Your task to perform on an android device: Search for "energizer triple a" on walmart.com, select the first entry, and add it to the cart. Image 0: 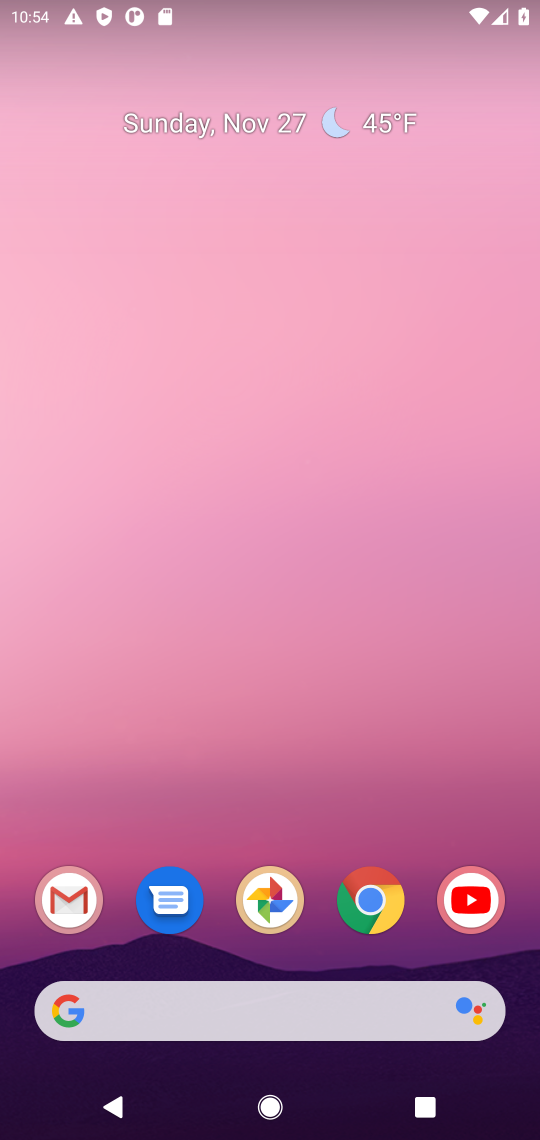
Step 0: click (374, 900)
Your task to perform on an android device: Search for "energizer triple a" on walmart.com, select the first entry, and add it to the cart. Image 1: 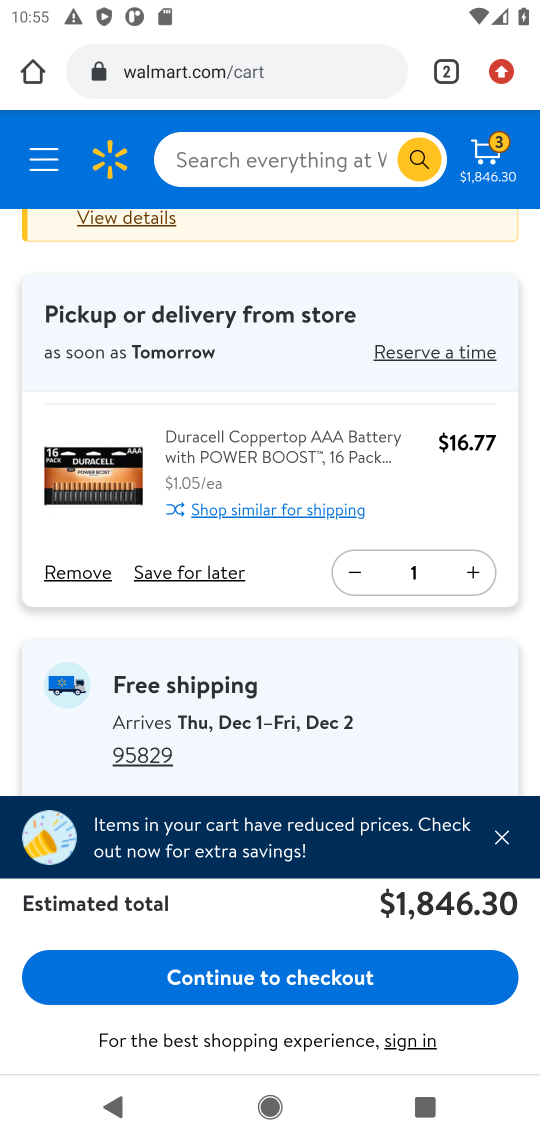
Step 1: click (227, 164)
Your task to perform on an android device: Search for "energizer triple a" on walmart.com, select the first entry, and add it to the cart. Image 2: 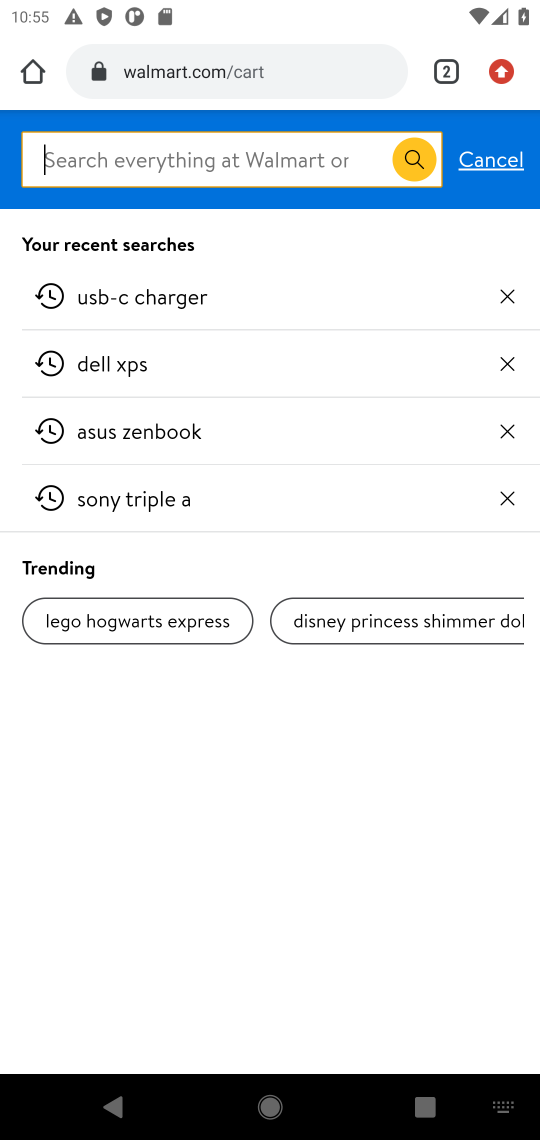
Step 2: type "energizer triple a"
Your task to perform on an android device: Search for "energizer triple a" on walmart.com, select the first entry, and add it to the cart. Image 3: 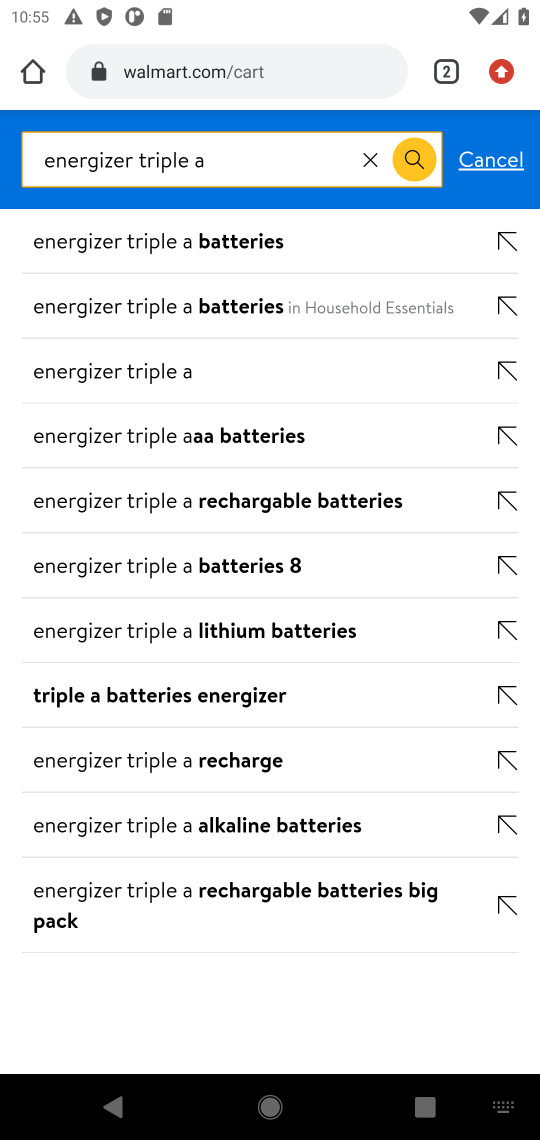
Step 3: click (142, 255)
Your task to perform on an android device: Search for "energizer triple a" on walmart.com, select the first entry, and add it to the cart. Image 4: 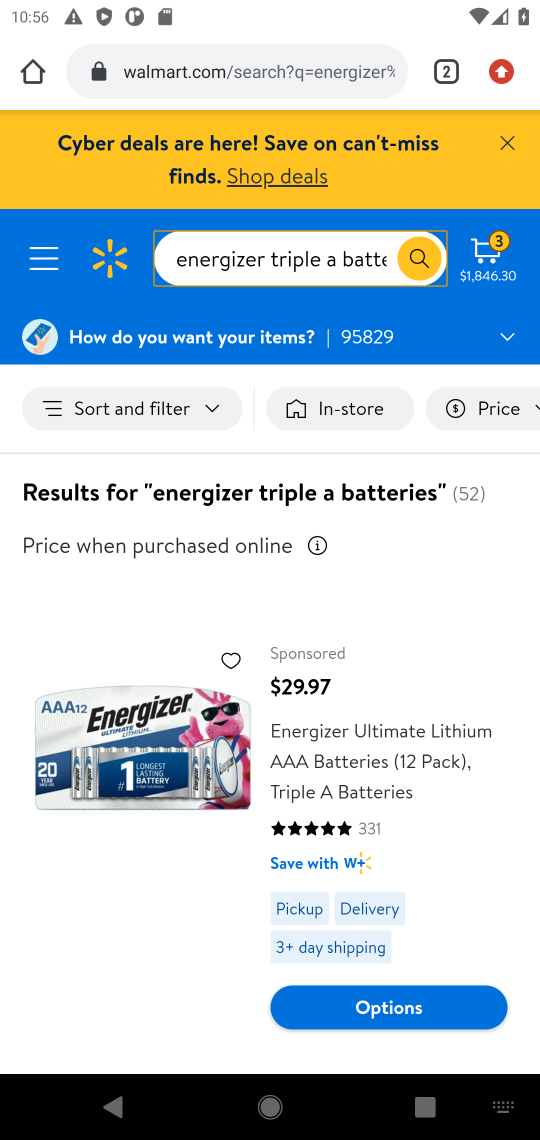
Step 4: drag from (187, 765) to (183, 483)
Your task to perform on an android device: Search for "energizer triple a" on walmart.com, select the first entry, and add it to the cart. Image 5: 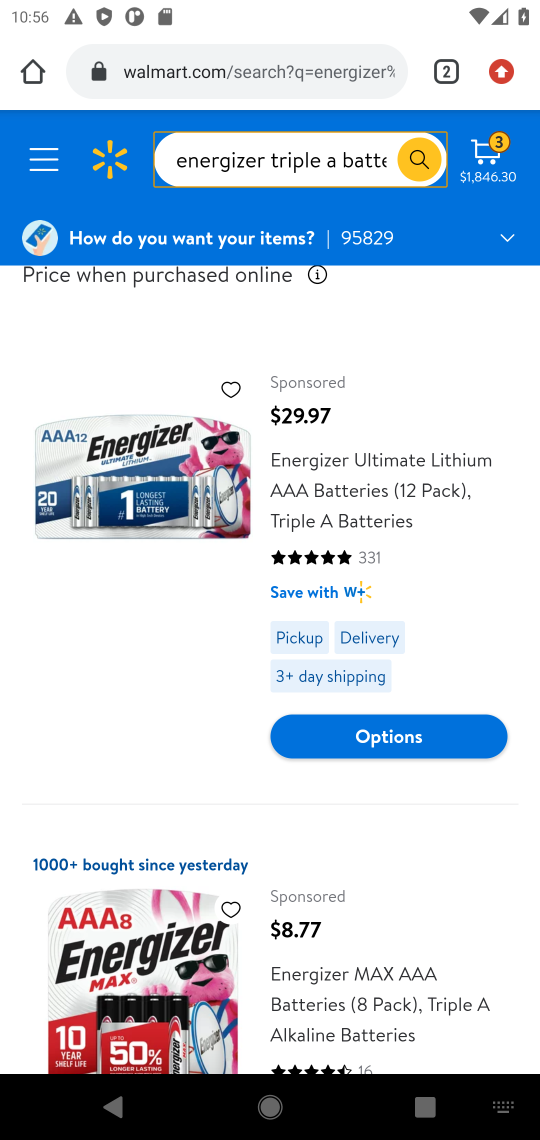
Step 5: click (188, 554)
Your task to perform on an android device: Search for "energizer triple a" on walmart.com, select the first entry, and add it to the cart. Image 6: 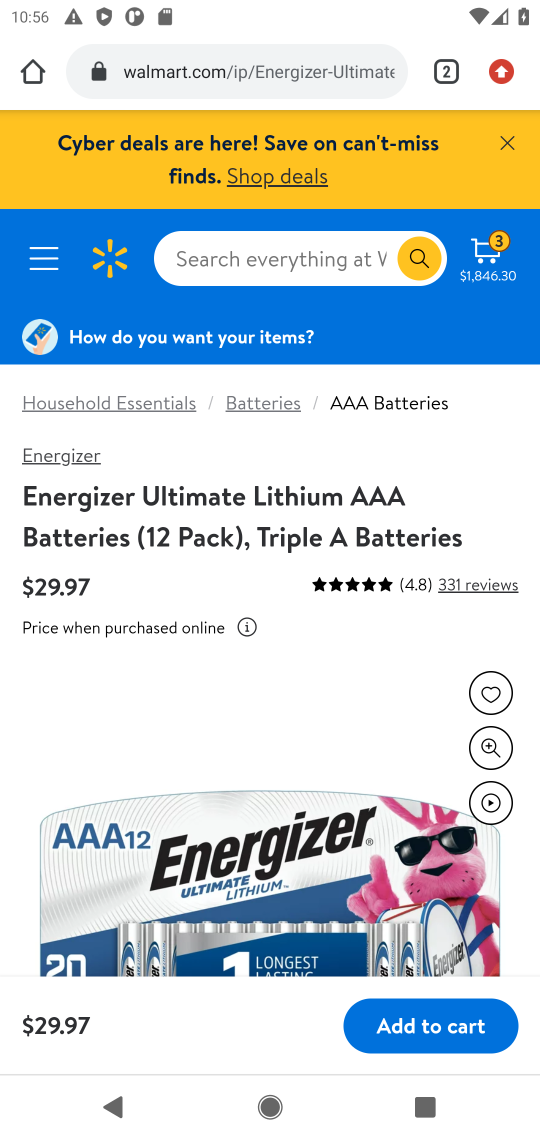
Step 6: drag from (230, 689) to (218, 447)
Your task to perform on an android device: Search for "energizer triple a" on walmart.com, select the first entry, and add it to the cart. Image 7: 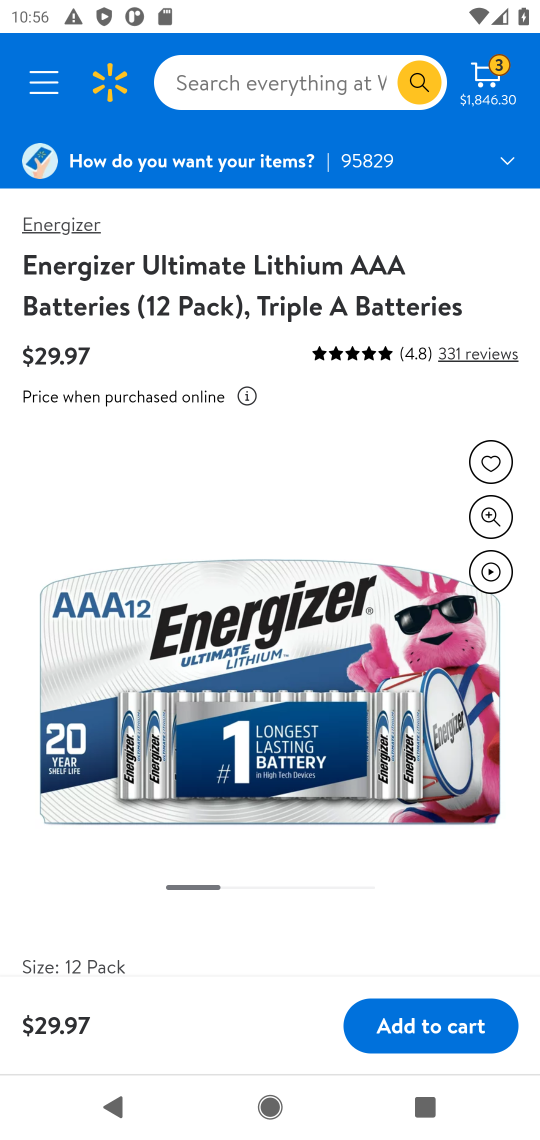
Step 7: click (417, 1029)
Your task to perform on an android device: Search for "energizer triple a" on walmart.com, select the first entry, and add it to the cart. Image 8: 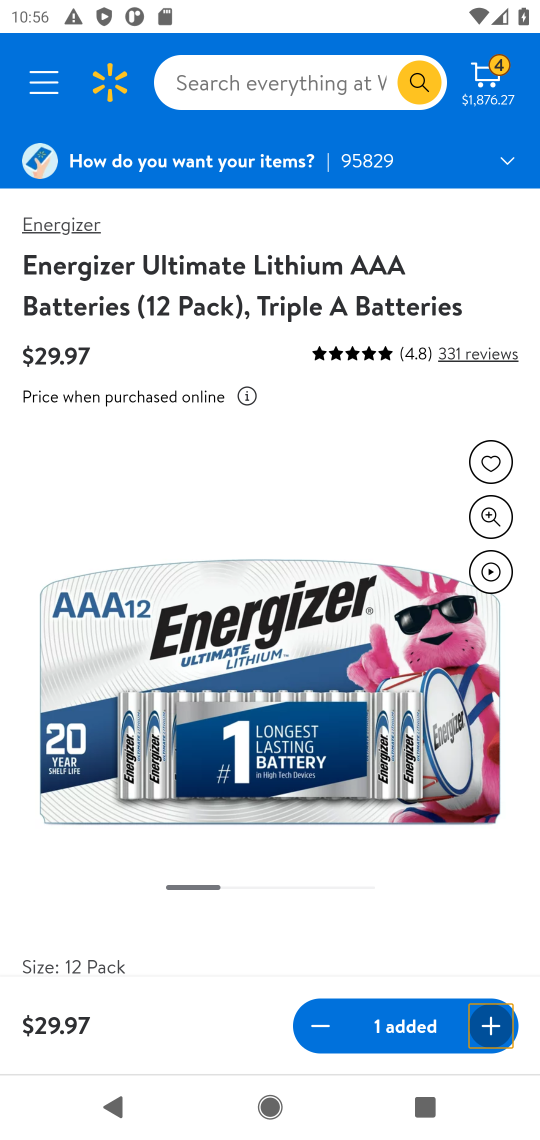
Step 8: task complete